Your task to perform on an android device: Go to Google maps Image 0: 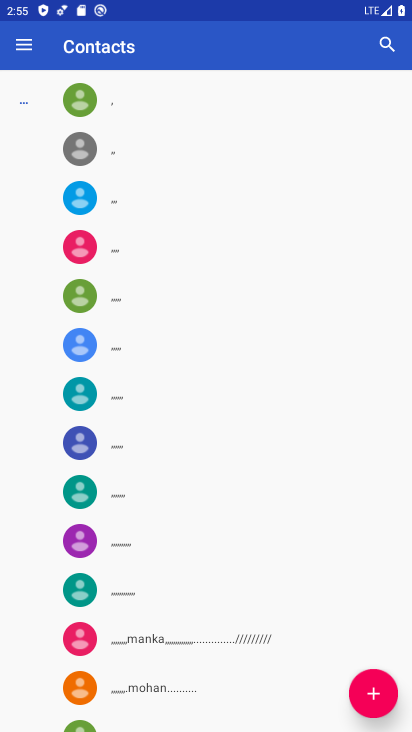
Step 0: press home button
Your task to perform on an android device: Go to Google maps Image 1: 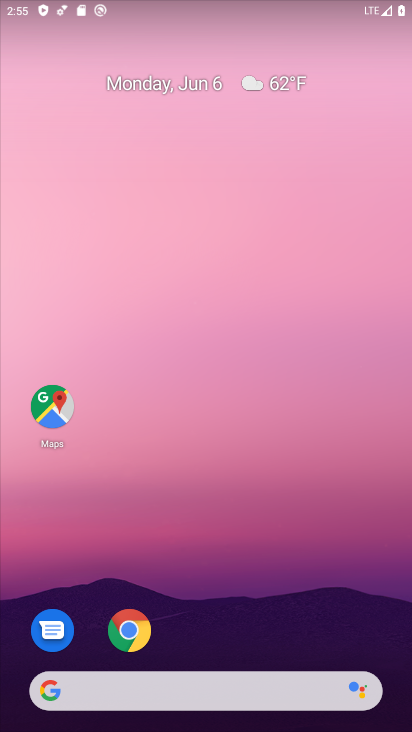
Step 1: click (63, 399)
Your task to perform on an android device: Go to Google maps Image 2: 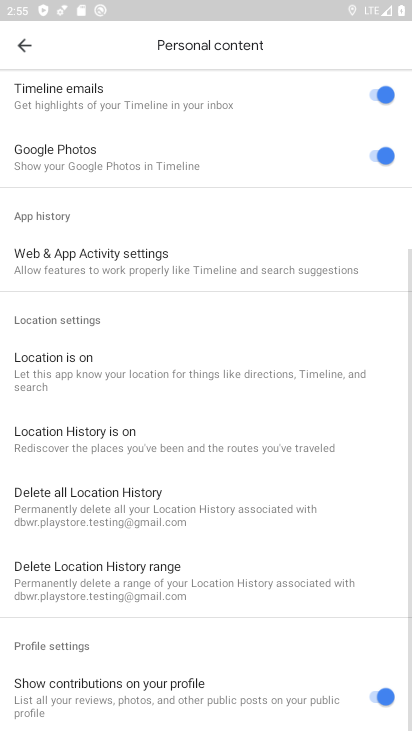
Step 2: task complete